Your task to perform on an android device: stop showing notifications on the lock screen Image 0: 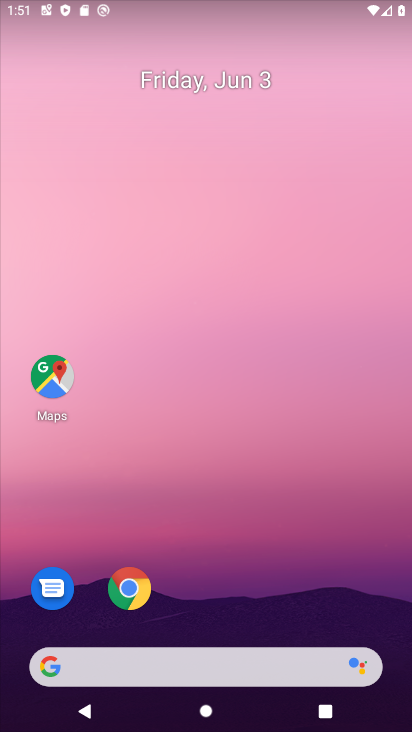
Step 0: drag from (238, 533) to (377, 36)
Your task to perform on an android device: stop showing notifications on the lock screen Image 1: 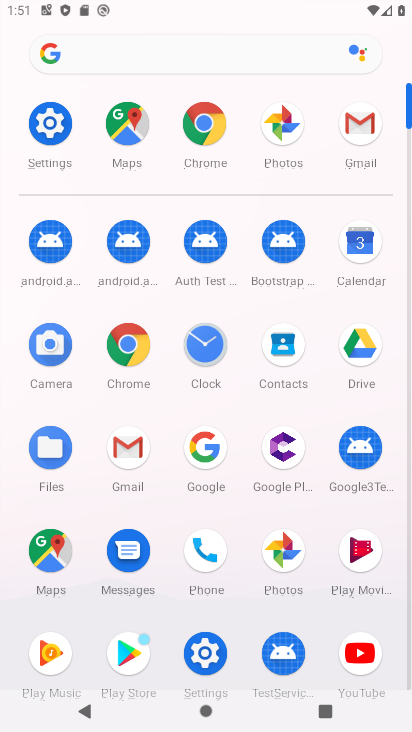
Step 1: drag from (174, 202) to (185, 13)
Your task to perform on an android device: stop showing notifications on the lock screen Image 2: 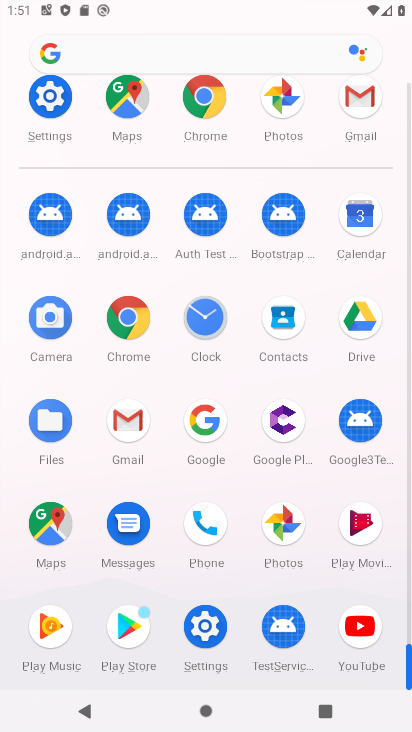
Step 2: click (203, 608)
Your task to perform on an android device: stop showing notifications on the lock screen Image 3: 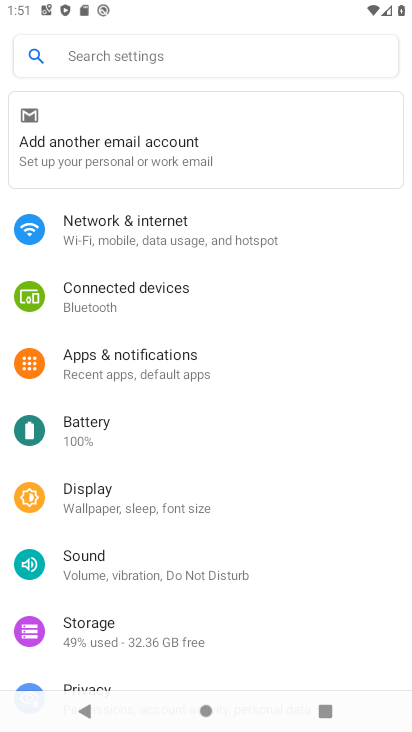
Step 3: click (191, 371)
Your task to perform on an android device: stop showing notifications on the lock screen Image 4: 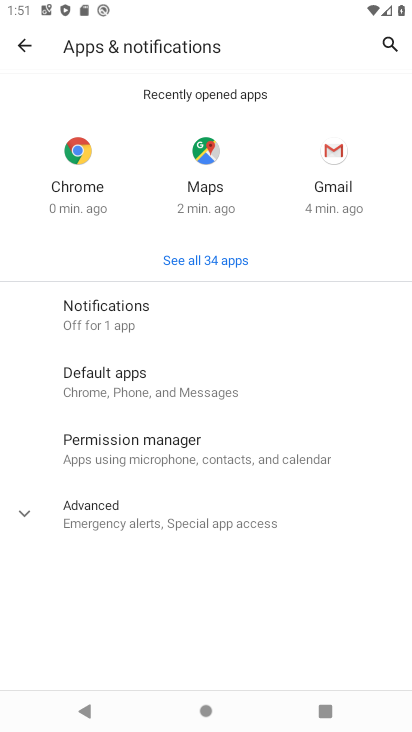
Step 4: click (175, 321)
Your task to perform on an android device: stop showing notifications on the lock screen Image 5: 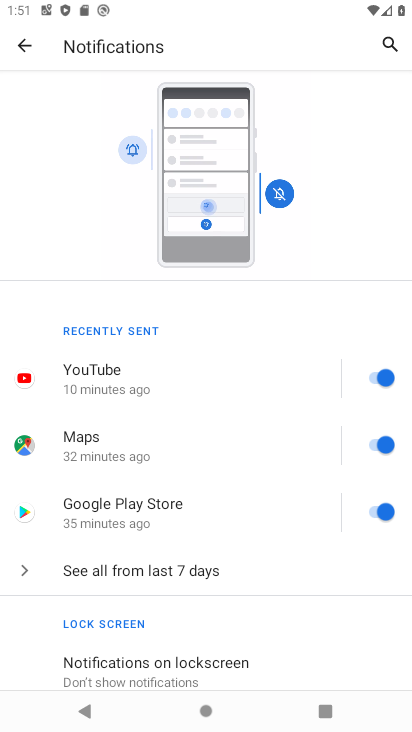
Step 5: drag from (154, 599) to (223, 287)
Your task to perform on an android device: stop showing notifications on the lock screen Image 6: 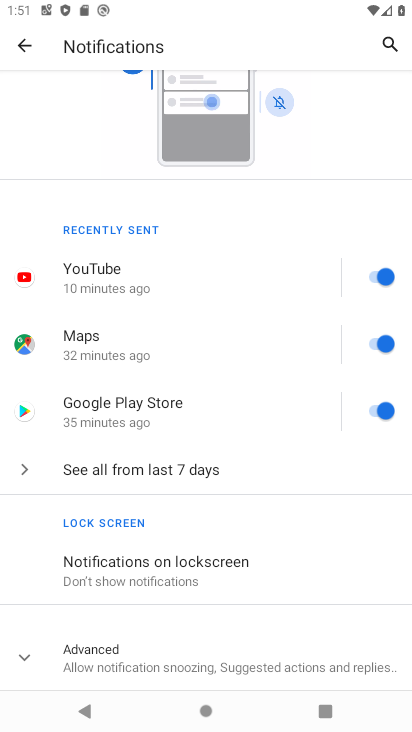
Step 6: click (181, 580)
Your task to perform on an android device: stop showing notifications on the lock screen Image 7: 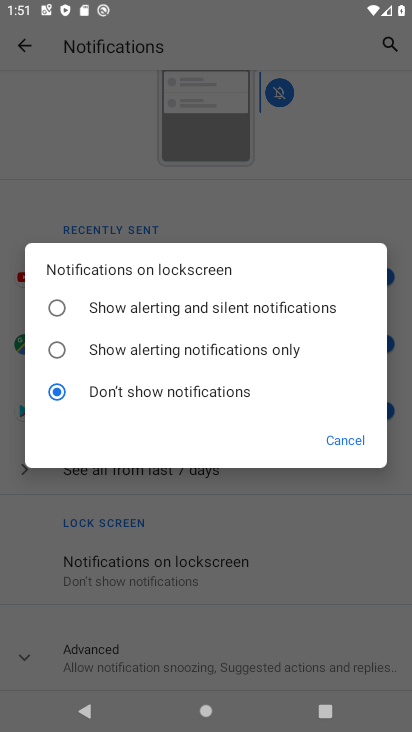
Step 7: task complete